Your task to perform on an android device: Go to CNN.com Image 0: 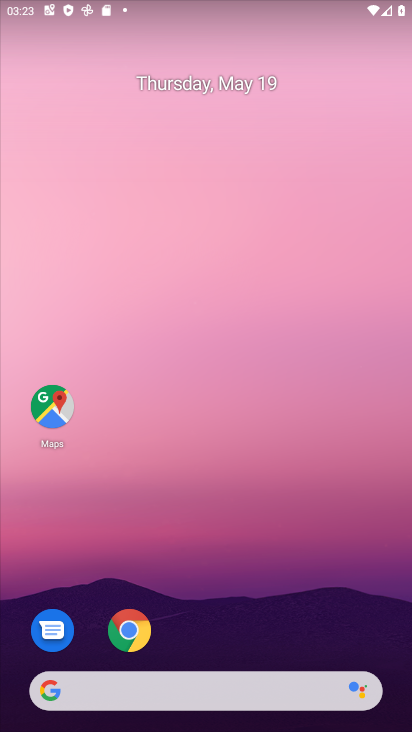
Step 0: click (128, 628)
Your task to perform on an android device: Go to CNN.com Image 1: 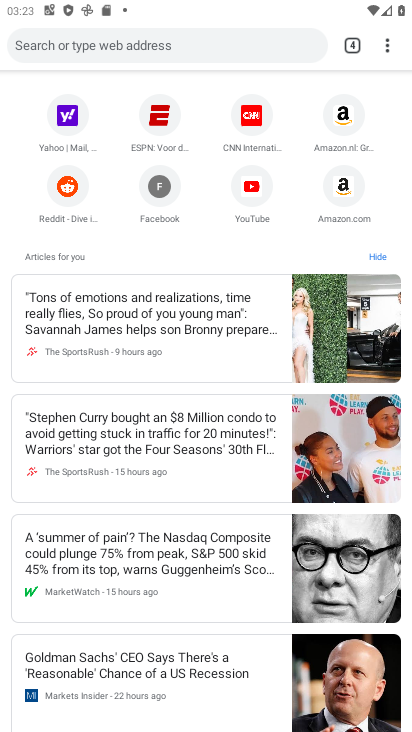
Step 1: click (83, 42)
Your task to perform on an android device: Go to CNN.com Image 2: 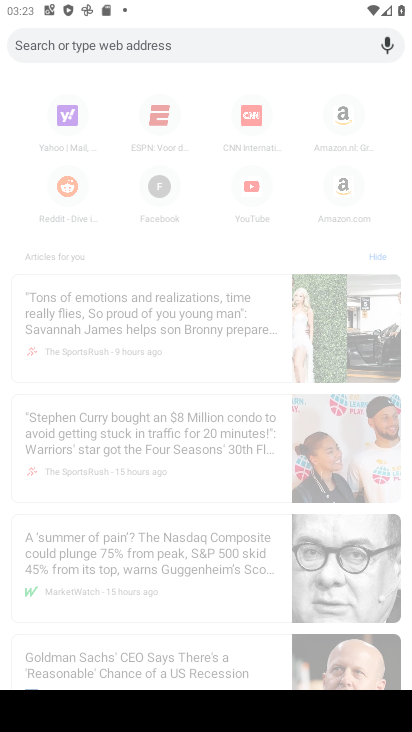
Step 2: type "cnn.com"
Your task to perform on an android device: Go to CNN.com Image 3: 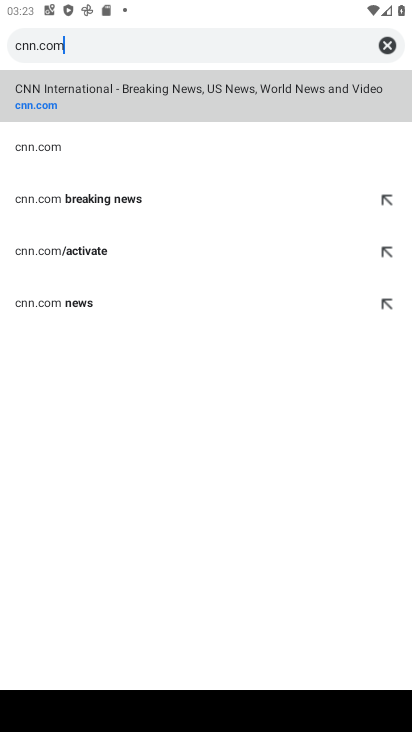
Step 3: click (37, 96)
Your task to perform on an android device: Go to CNN.com Image 4: 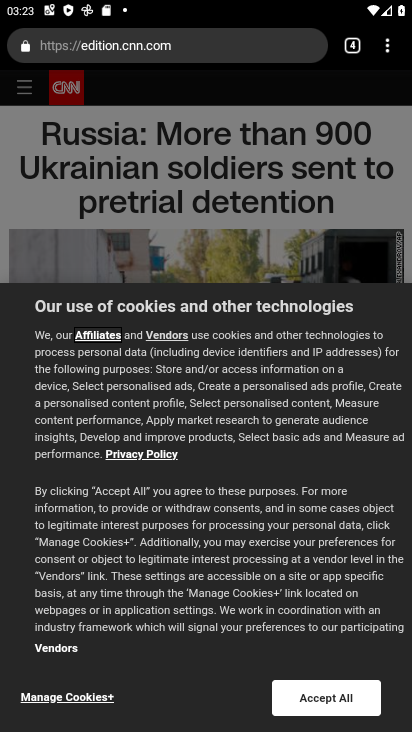
Step 4: task complete